Your task to perform on an android device: turn off sleep mode Image 0: 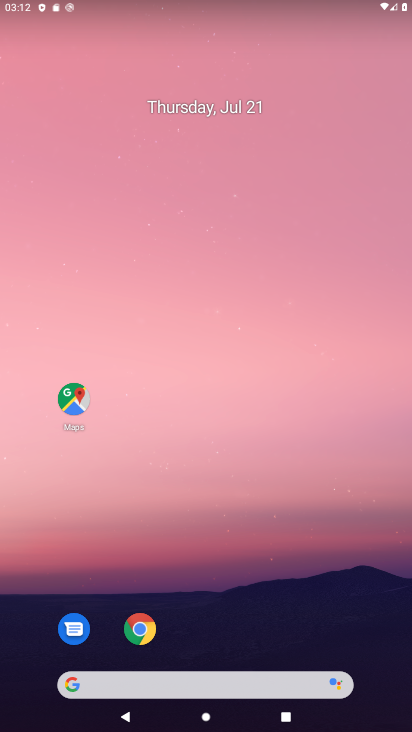
Step 0: press home button
Your task to perform on an android device: turn off sleep mode Image 1: 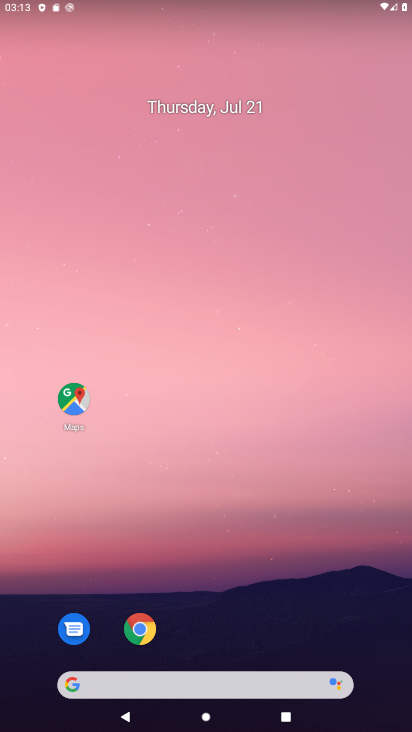
Step 1: drag from (246, 584) to (211, 11)
Your task to perform on an android device: turn off sleep mode Image 2: 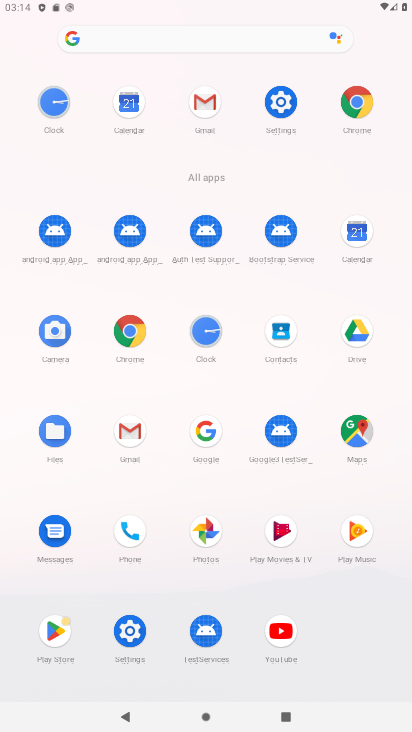
Step 2: click (151, 627)
Your task to perform on an android device: turn off sleep mode Image 3: 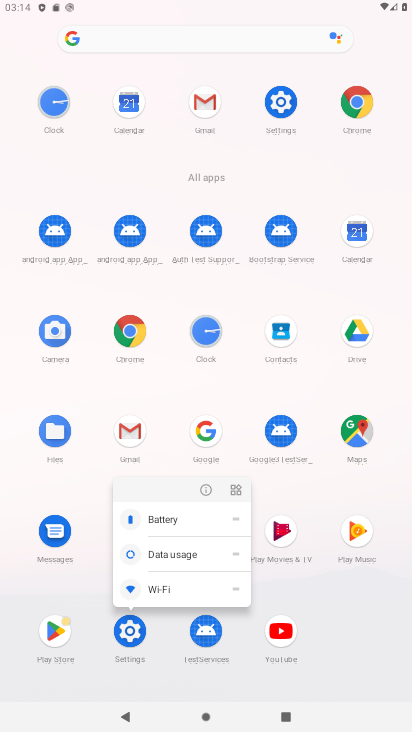
Step 3: click (146, 635)
Your task to perform on an android device: turn off sleep mode Image 4: 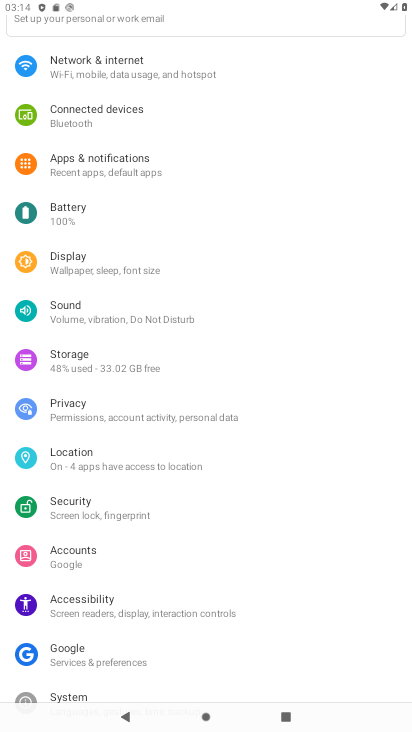
Step 4: click (72, 256)
Your task to perform on an android device: turn off sleep mode Image 5: 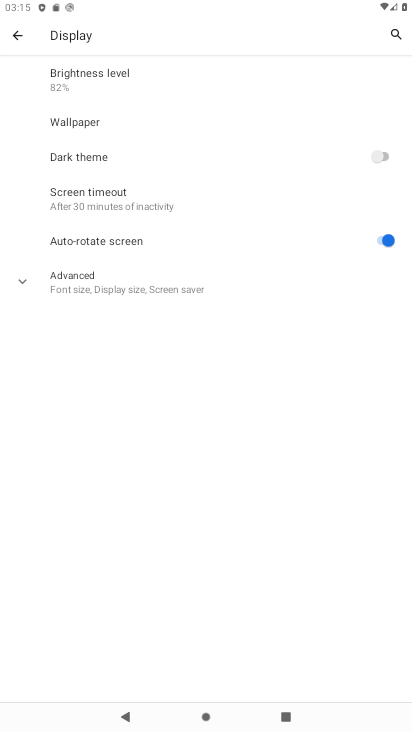
Step 5: task complete